Your task to perform on an android device: clear history in the chrome app Image 0: 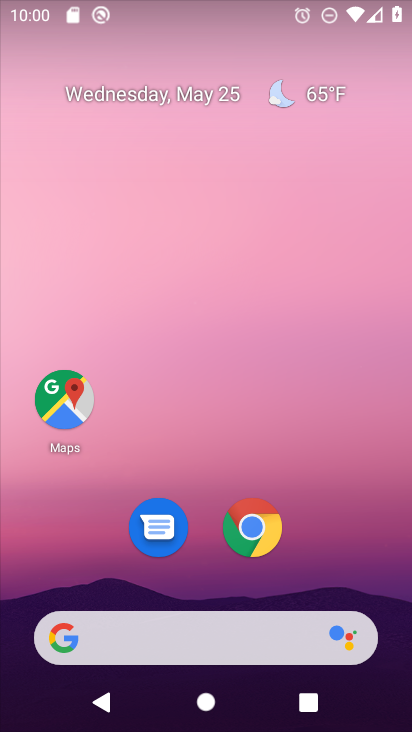
Step 0: click (254, 529)
Your task to perform on an android device: clear history in the chrome app Image 1: 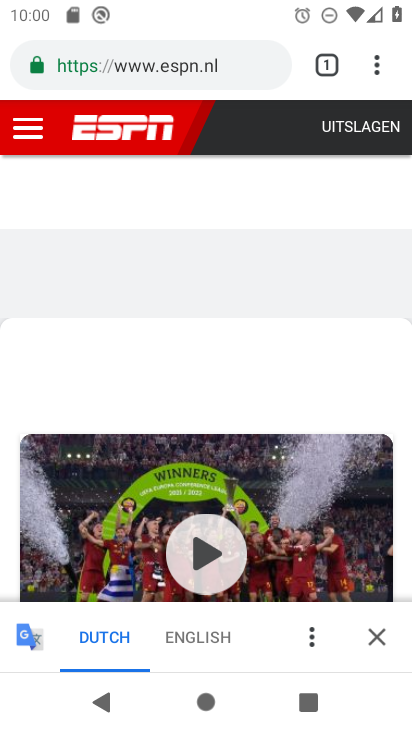
Step 1: click (376, 66)
Your task to perform on an android device: clear history in the chrome app Image 2: 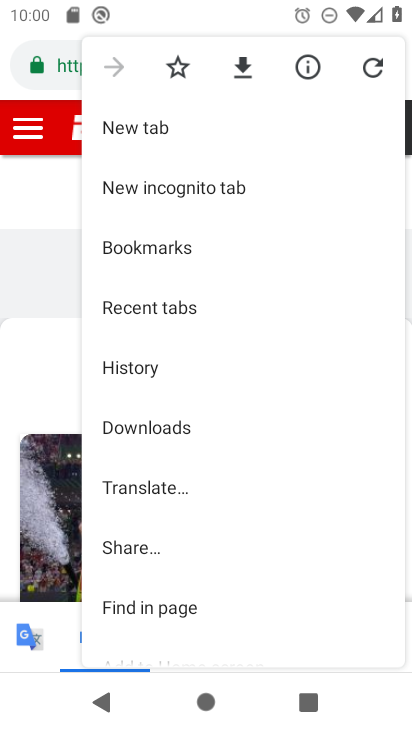
Step 2: click (143, 369)
Your task to perform on an android device: clear history in the chrome app Image 3: 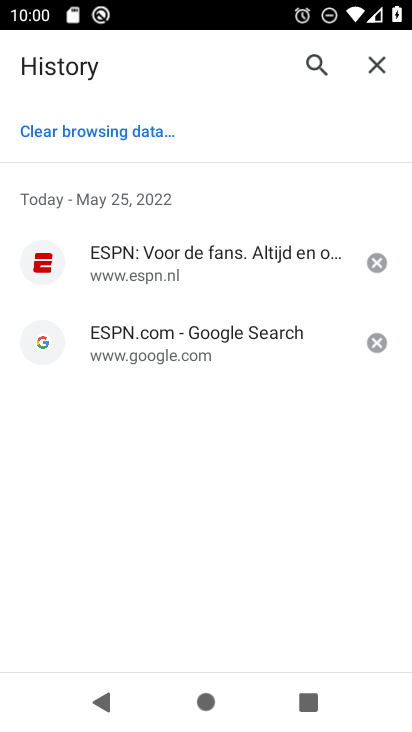
Step 3: click (111, 135)
Your task to perform on an android device: clear history in the chrome app Image 4: 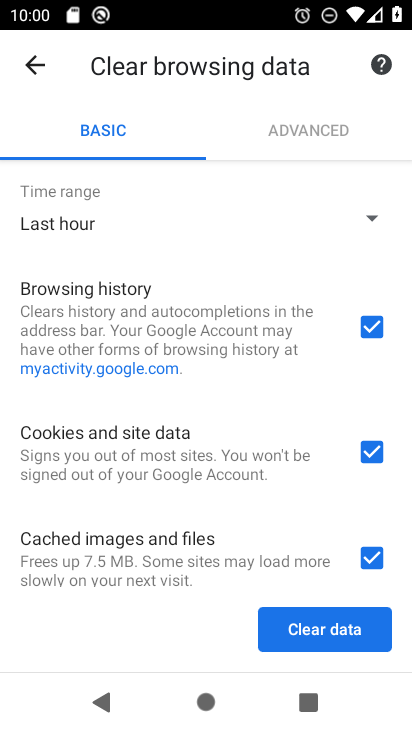
Step 4: click (306, 618)
Your task to perform on an android device: clear history in the chrome app Image 5: 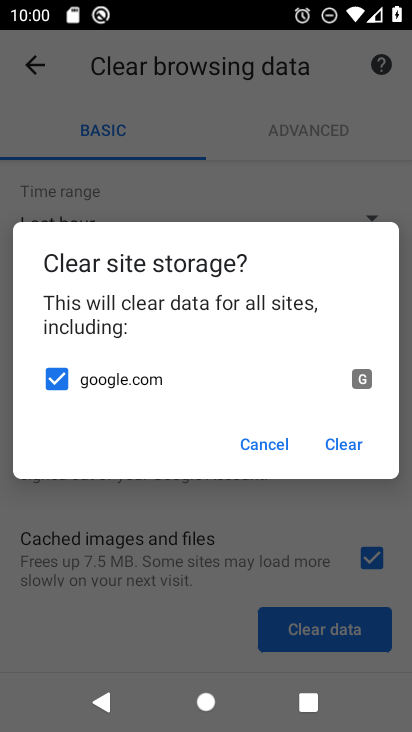
Step 5: click (350, 447)
Your task to perform on an android device: clear history in the chrome app Image 6: 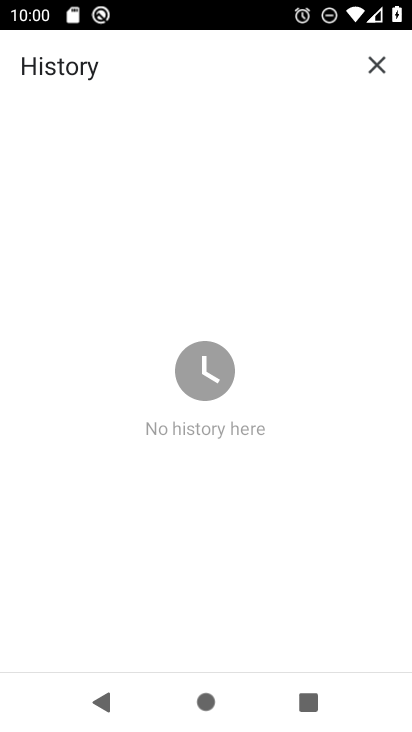
Step 6: task complete